Your task to perform on an android device: Go to battery settings Image 0: 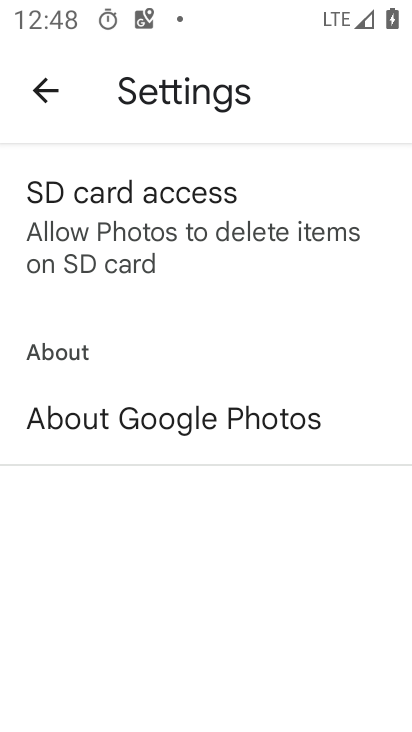
Step 0: press home button
Your task to perform on an android device: Go to battery settings Image 1: 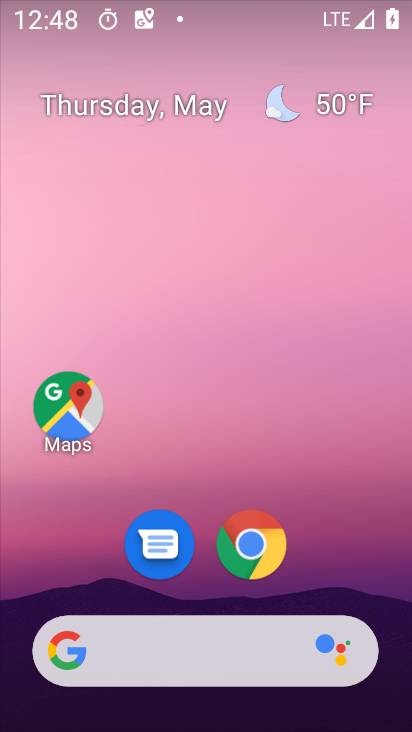
Step 1: drag from (187, 633) to (167, 53)
Your task to perform on an android device: Go to battery settings Image 2: 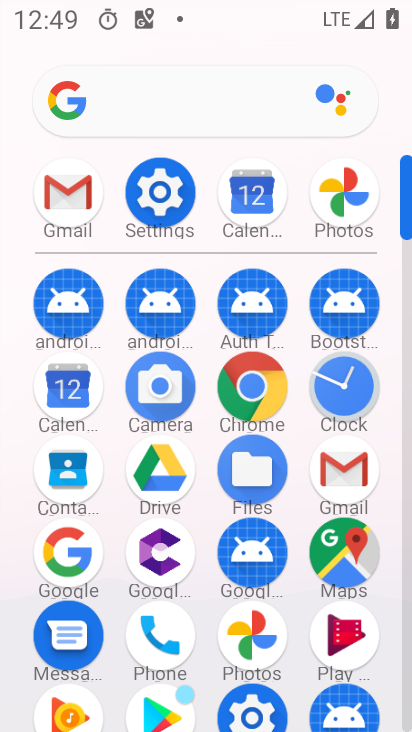
Step 2: click (155, 210)
Your task to perform on an android device: Go to battery settings Image 3: 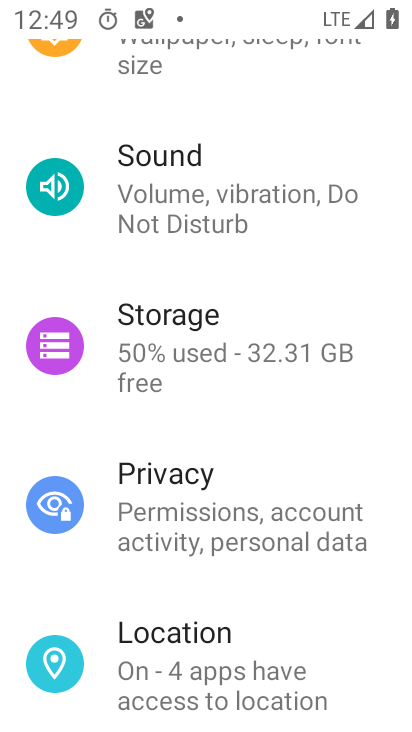
Step 3: drag from (172, 241) to (193, 614)
Your task to perform on an android device: Go to battery settings Image 4: 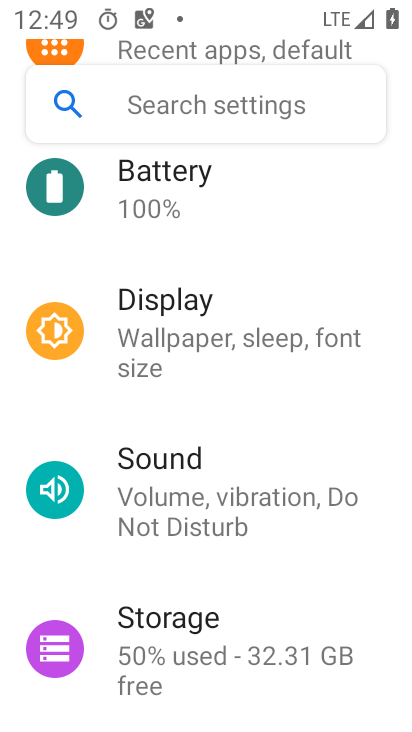
Step 4: click (150, 218)
Your task to perform on an android device: Go to battery settings Image 5: 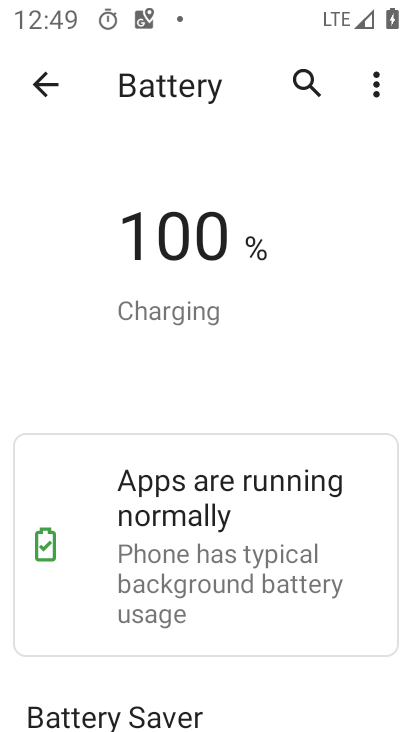
Step 5: task complete